Your task to perform on an android device: Go to CNN.com Image 0: 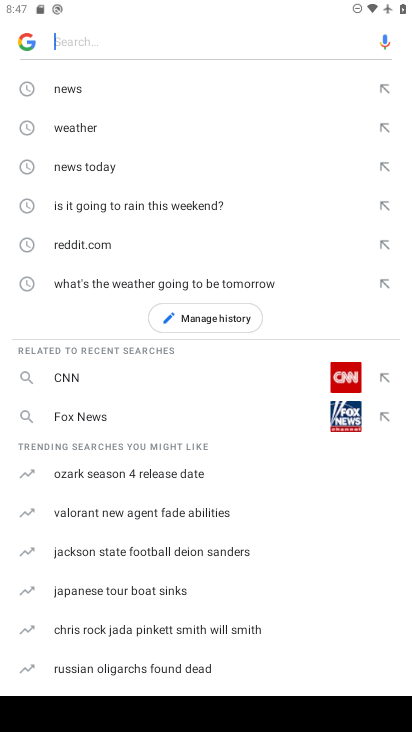
Step 0: press home button
Your task to perform on an android device: Go to CNN.com Image 1: 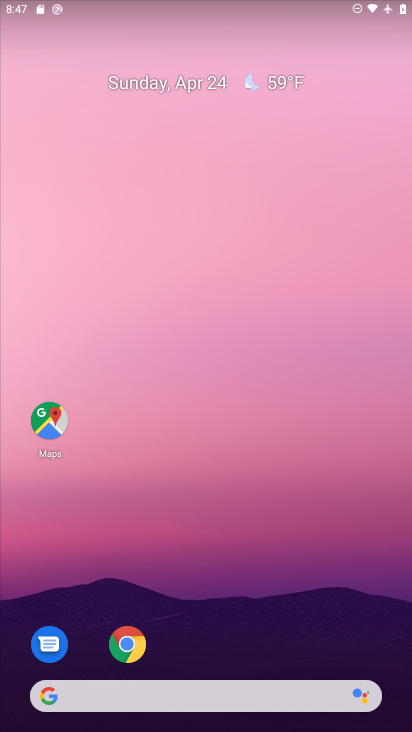
Step 1: drag from (227, 653) to (255, 134)
Your task to perform on an android device: Go to CNN.com Image 2: 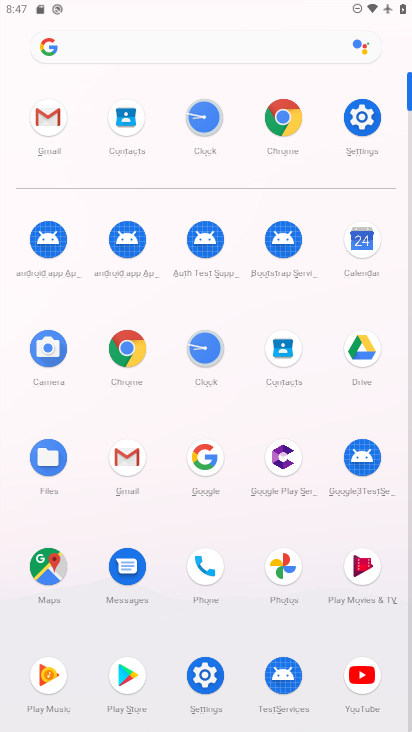
Step 2: click (125, 346)
Your task to perform on an android device: Go to CNN.com Image 3: 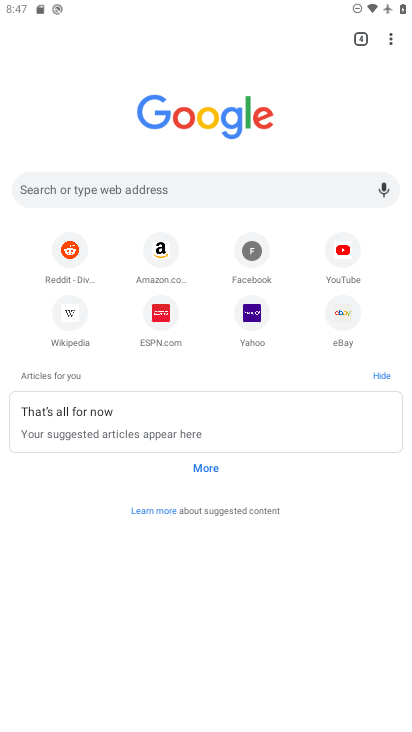
Step 3: click (150, 183)
Your task to perform on an android device: Go to CNN.com Image 4: 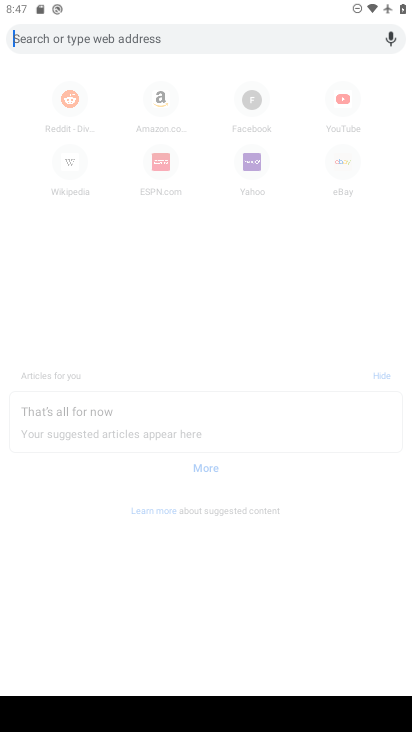
Step 4: type "cnn"
Your task to perform on an android device: Go to CNN.com Image 5: 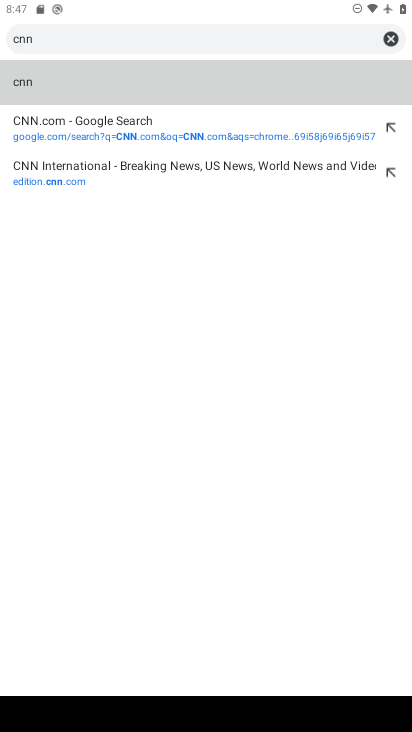
Step 5: click (127, 118)
Your task to perform on an android device: Go to CNN.com Image 6: 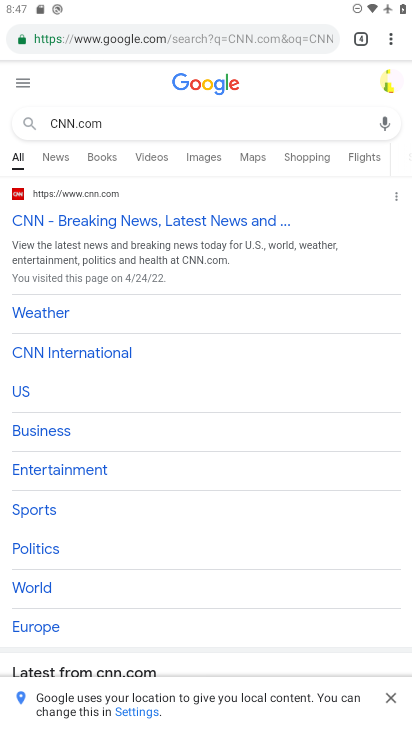
Step 6: click (82, 221)
Your task to perform on an android device: Go to CNN.com Image 7: 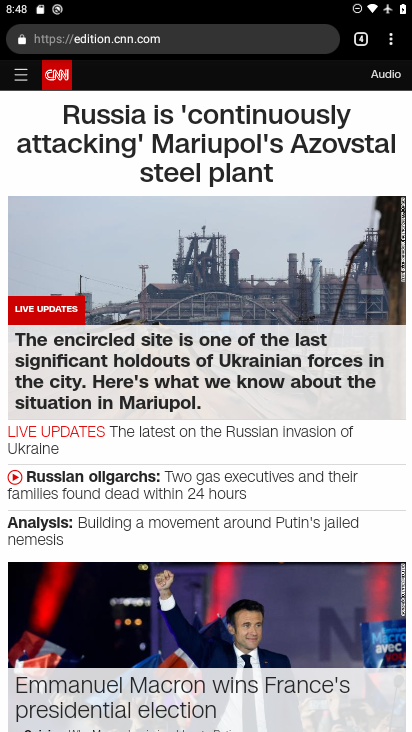
Step 7: task complete